Your task to perform on an android device: Open Yahoo.com Image 0: 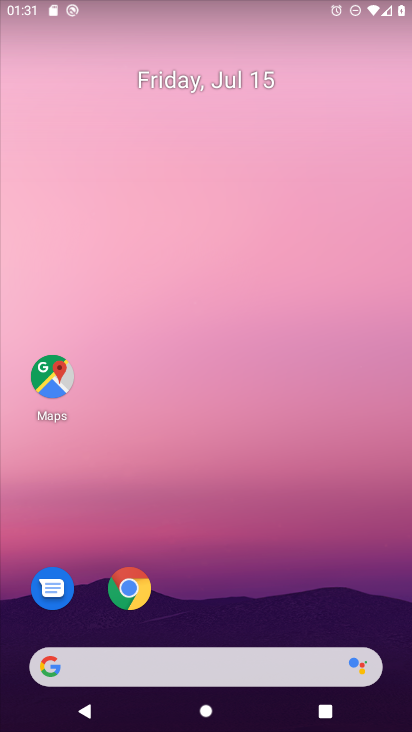
Step 0: click (132, 592)
Your task to perform on an android device: Open Yahoo.com Image 1: 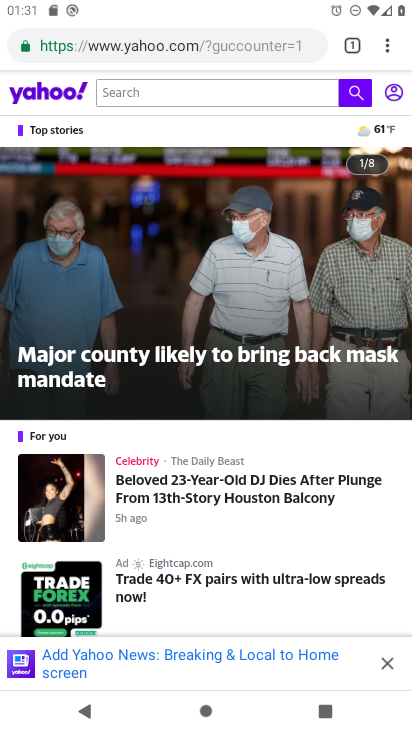
Step 1: task complete